Your task to perform on an android device: open app "Upside-Cash back on gas & food" Image 0: 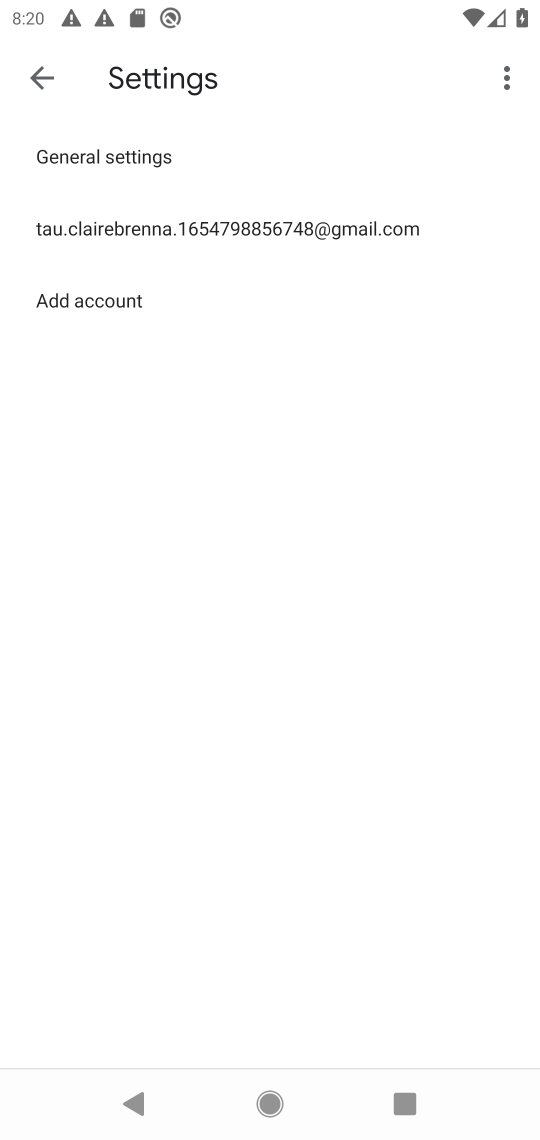
Step 0: press home button
Your task to perform on an android device: open app "Upside-Cash back on gas & food" Image 1: 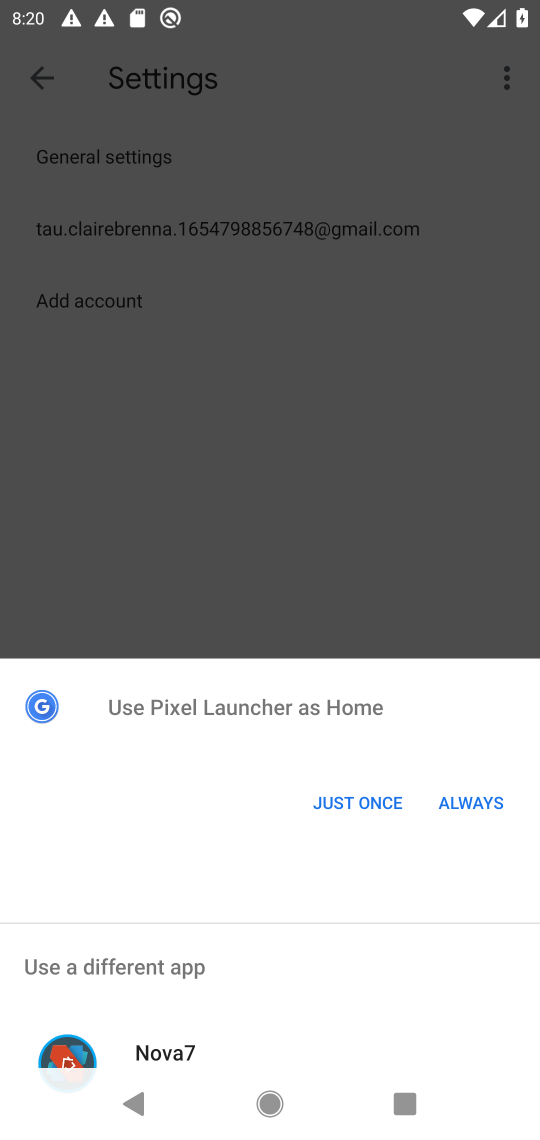
Step 1: click (366, 801)
Your task to perform on an android device: open app "Upside-Cash back on gas & food" Image 2: 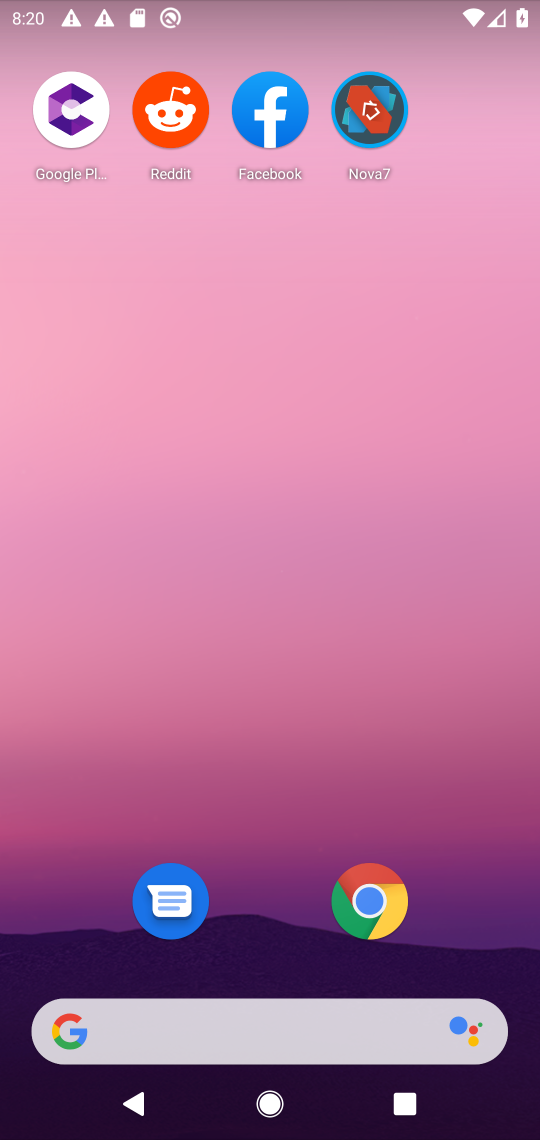
Step 2: drag from (162, 1001) to (69, 0)
Your task to perform on an android device: open app "Upside-Cash back on gas & food" Image 3: 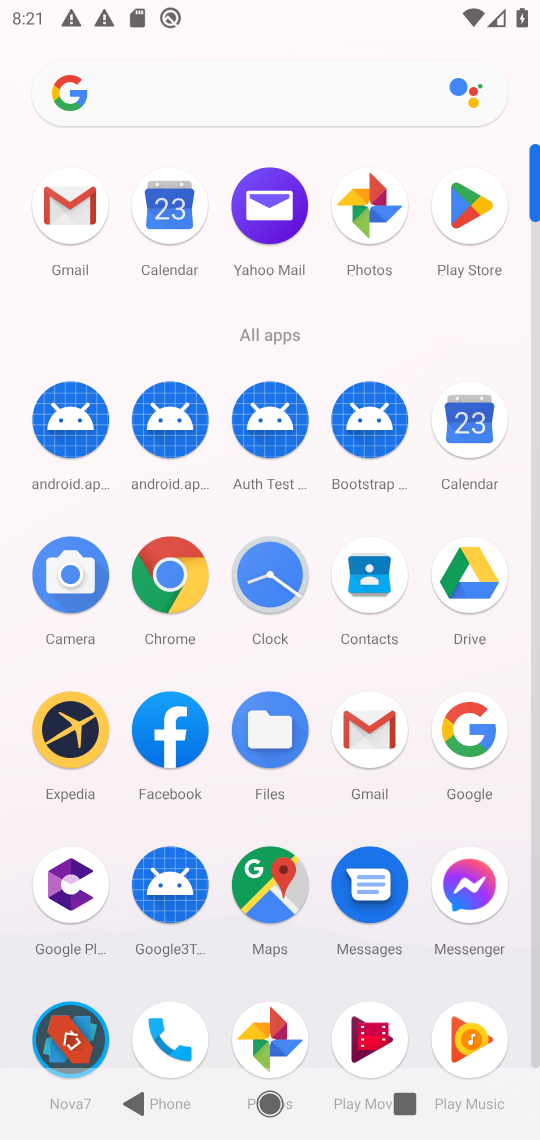
Step 3: click (475, 204)
Your task to perform on an android device: open app "Upside-Cash back on gas & food" Image 4: 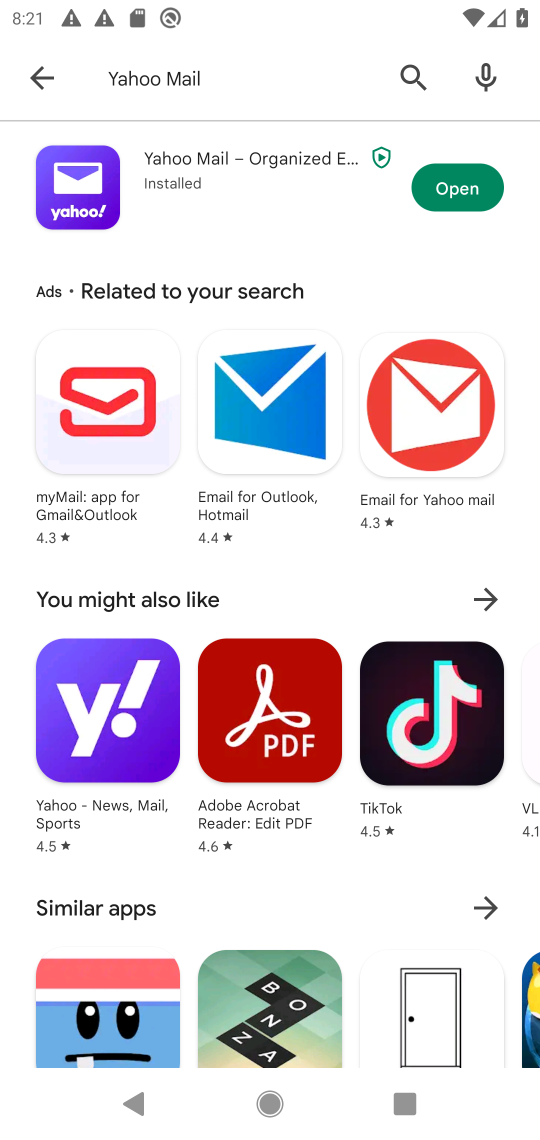
Step 4: press back button
Your task to perform on an android device: open app "Upside-Cash back on gas & food" Image 5: 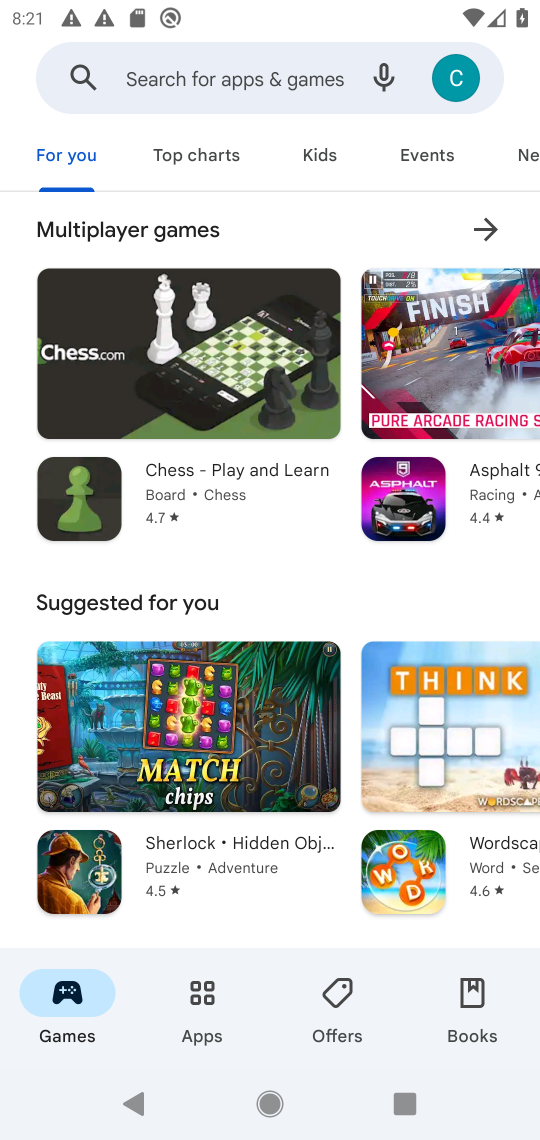
Step 5: click (240, 87)
Your task to perform on an android device: open app "Upside-Cash back on gas & food" Image 6: 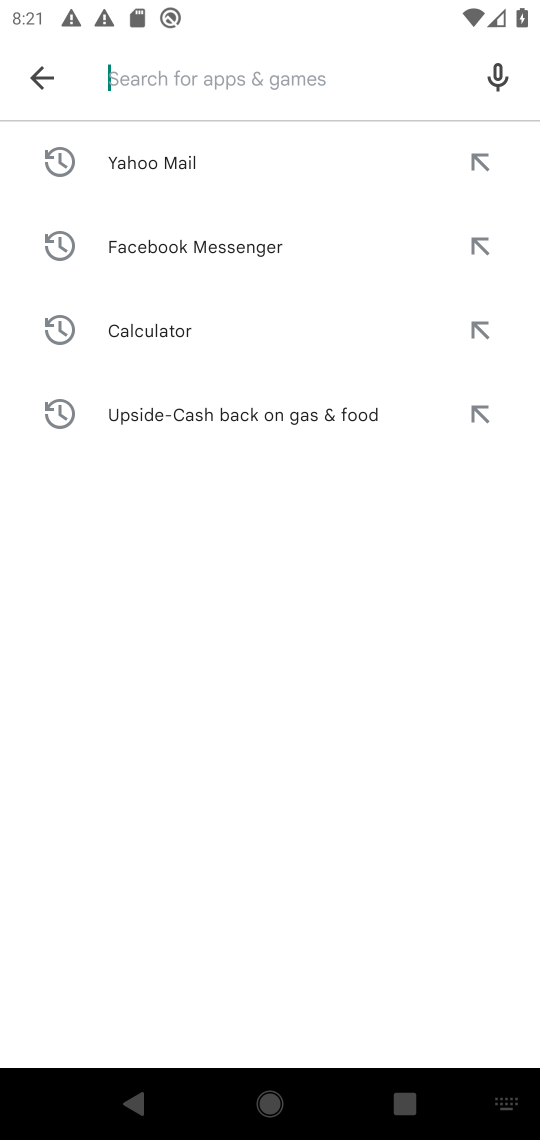
Step 6: type "Upside-Cash back on gas & food"
Your task to perform on an android device: open app "Upside-Cash back on gas & food" Image 7: 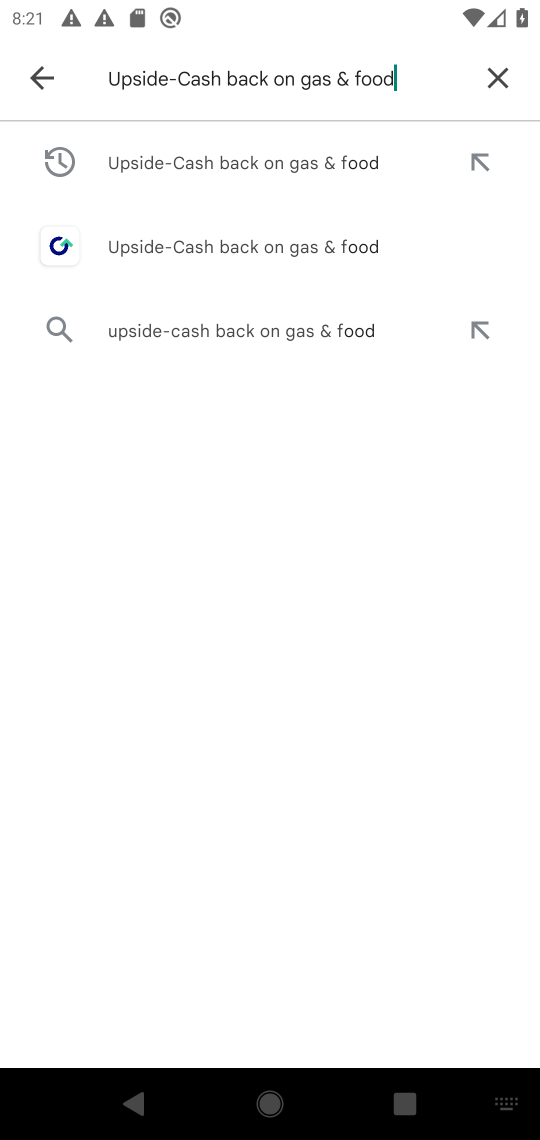
Step 7: press enter
Your task to perform on an android device: open app "Upside-Cash back on gas & food" Image 8: 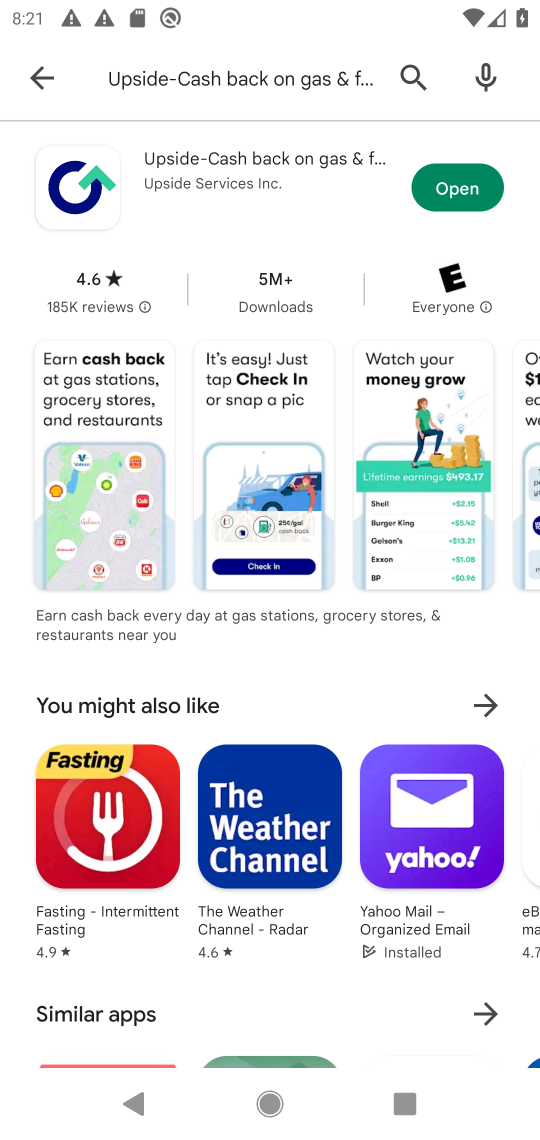
Step 8: click (455, 181)
Your task to perform on an android device: open app "Upside-Cash back on gas & food" Image 9: 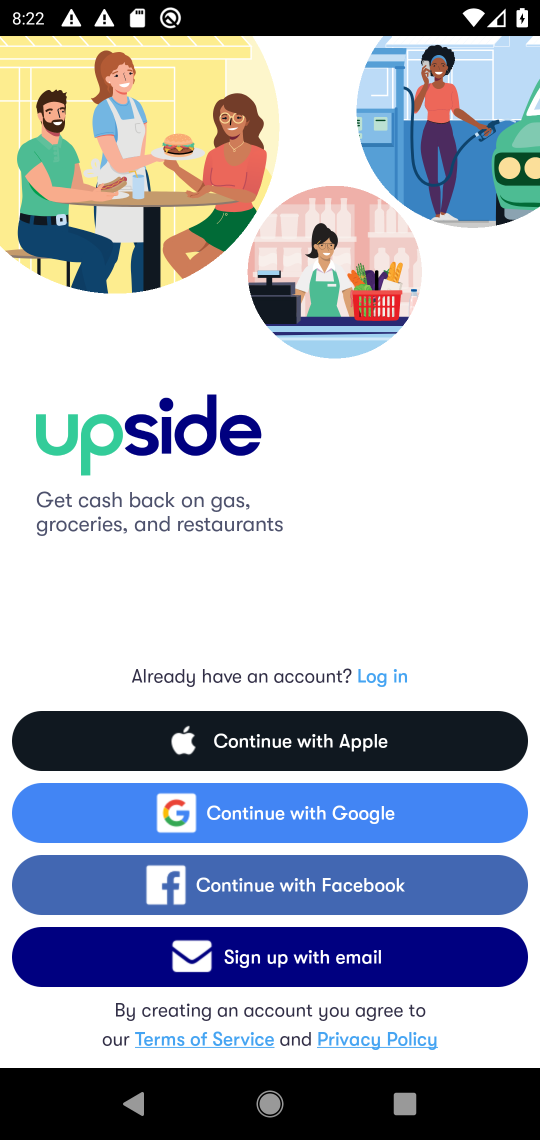
Step 9: task complete